Your task to perform on an android device: set the stopwatch Image 0: 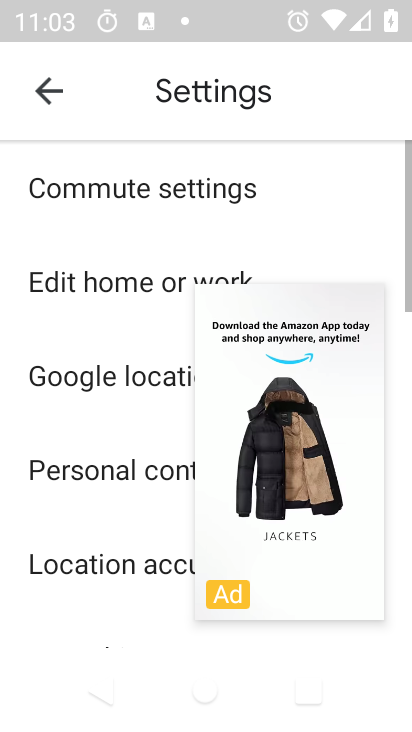
Step 0: click (373, 314)
Your task to perform on an android device: set the stopwatch Image 1: 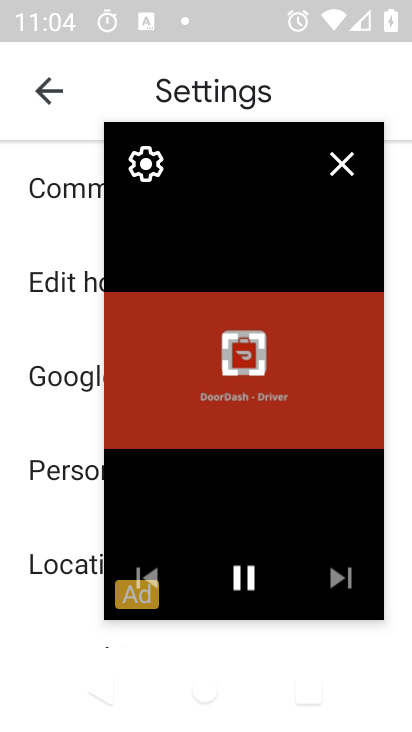
Step 1: click (329, 160)
Your task to perform on an android device: set the stopwatch Image 2: 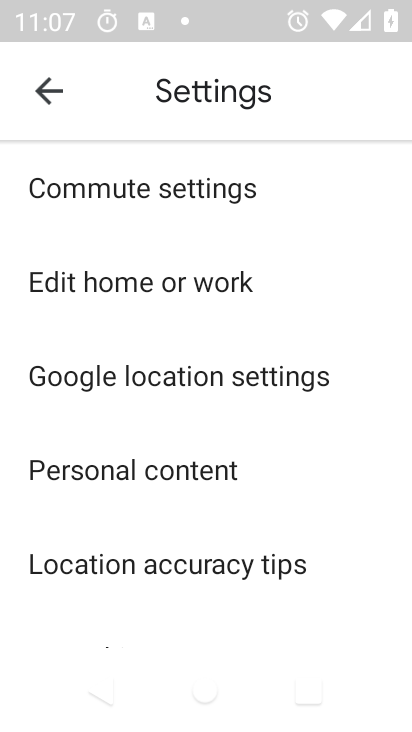
Step 2: press home button
Your task to perform on an android device: set the stopwatch Image 3: 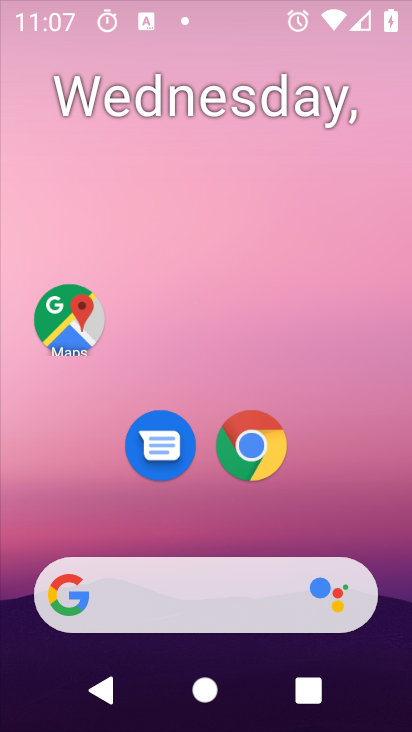
Step 3: drag from (358, 516) to (354, 8)
Your task to perform on an android device: set the stopwatch Image 4: 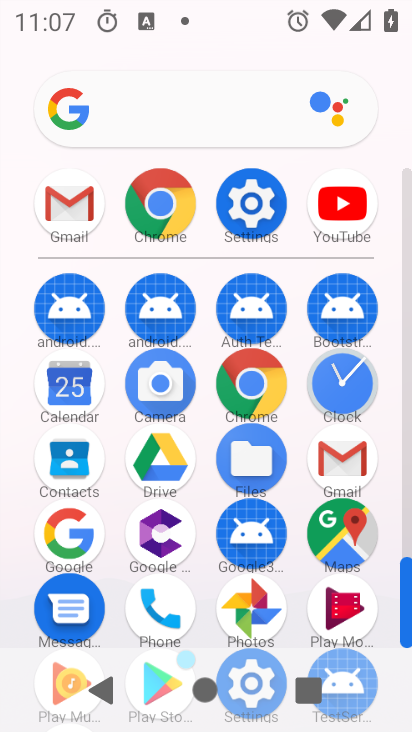
Step 4: click (348, 389)
Your task to perform on an android device: set the stopwatch Image 5: 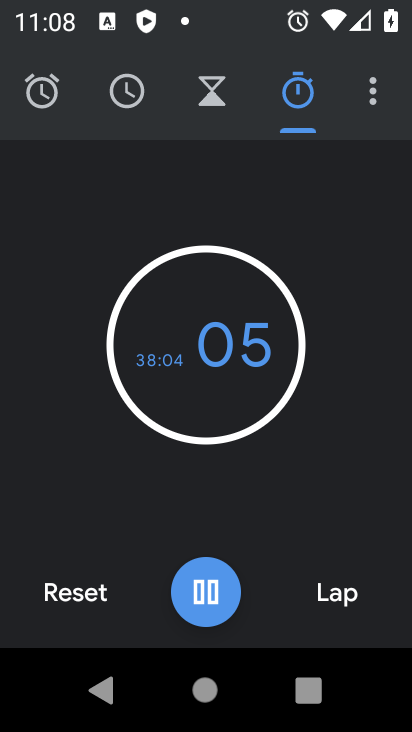
Step 5: task complete